Your task to perform on an android device: Go to Google maps Image 0: 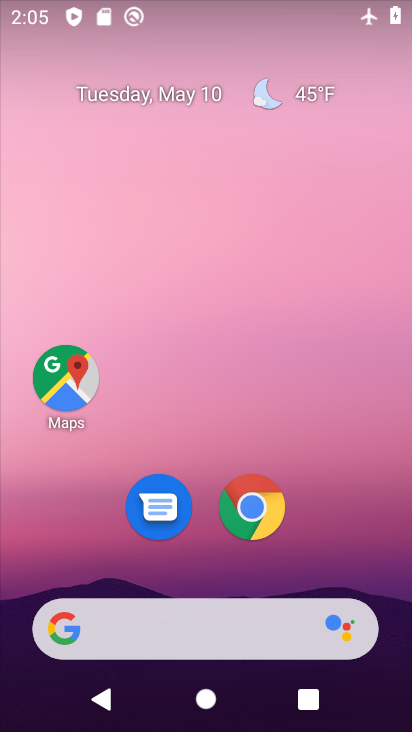
Step 0: click (71, 386)
Your task to perform on an android device: Go to Google maps Image 1: 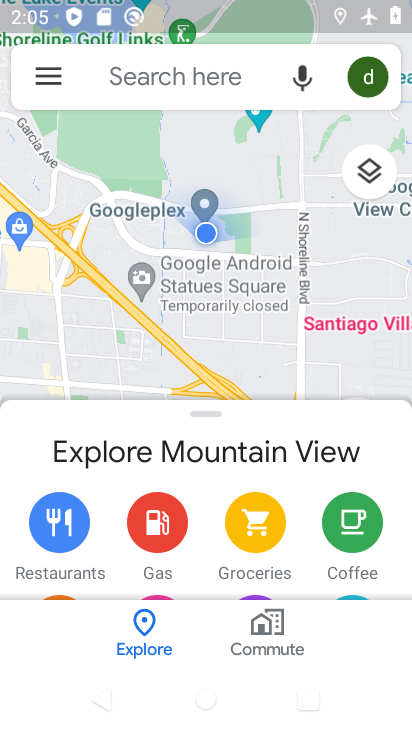
Step 1: task complete